Your task to perform on an android device: turn on javascript in the chrome app Image 0: 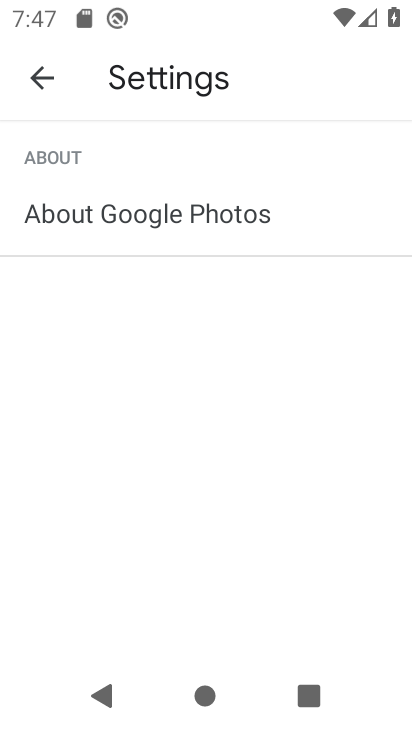
Step 0: press back button
Your task to perform on an android device: turn on javascript in the chrome app Image 1: 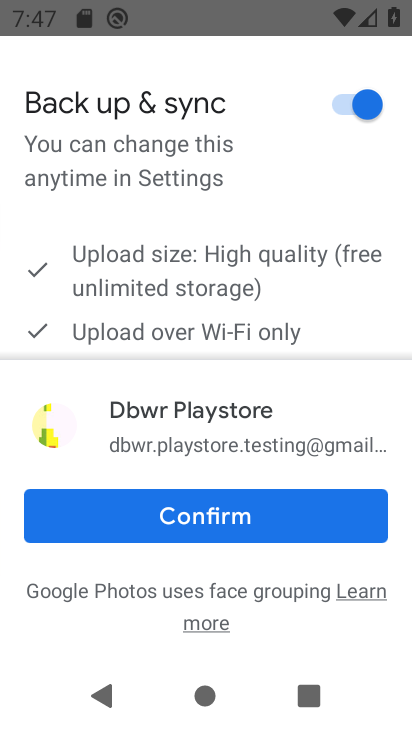
Step 1: press back button
Your task to perform on an android device: turn on javascript in the chrome app Image 2: 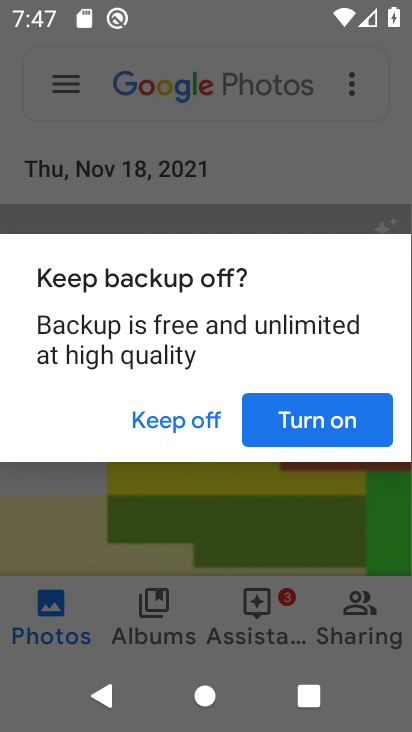
Step 2: press back button
Your task to perform on an android device: turn on javascript in the chrome app Image 3: 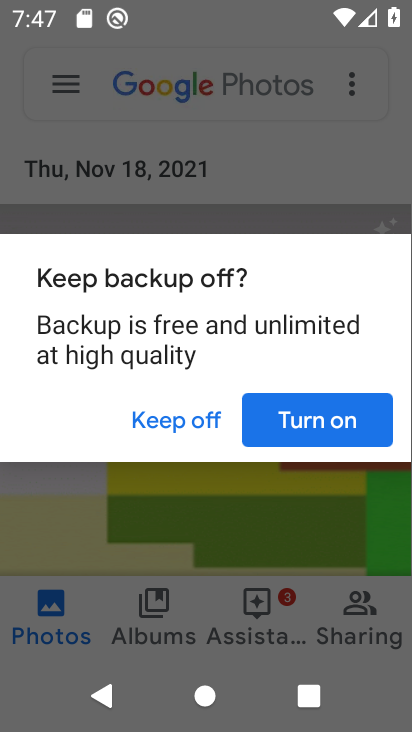
Step 3: press home button
Your task to perform on an android device: turn on javascript in the chrome app Image 4: 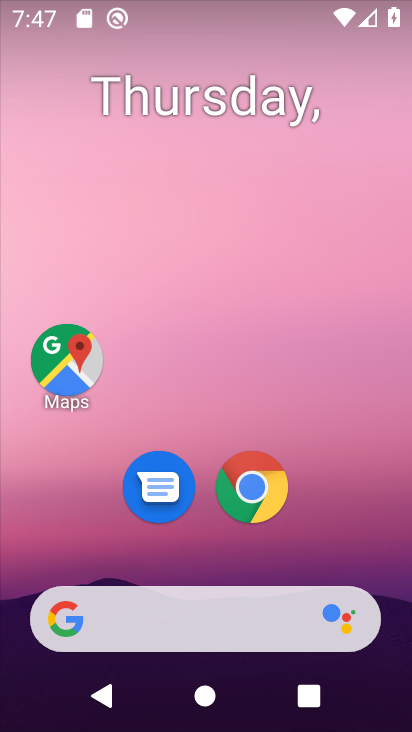
Step 4: click (270, 483)
Your task to perform on an android device: turn on javascript in the chrome app Image 5: 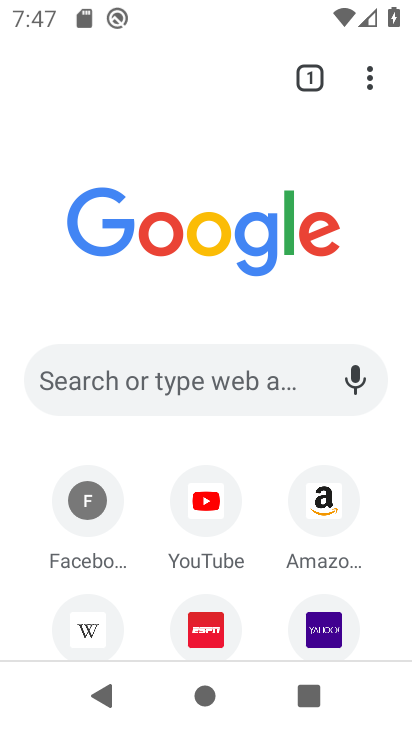
Step 5: click (372, 83)
Your task to perform on an android device: turn on javascript in the chrome app Image 6: 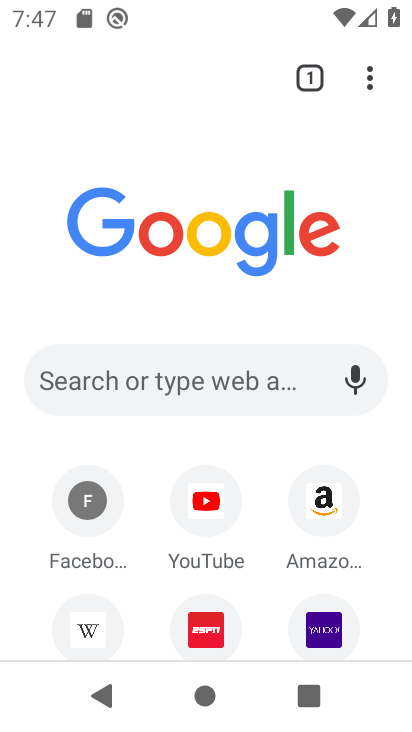
Step 6: drag from (373, 72) to (100, 555)
Your task to perform on an android device: turn on javascript in the chrome app Image 7: 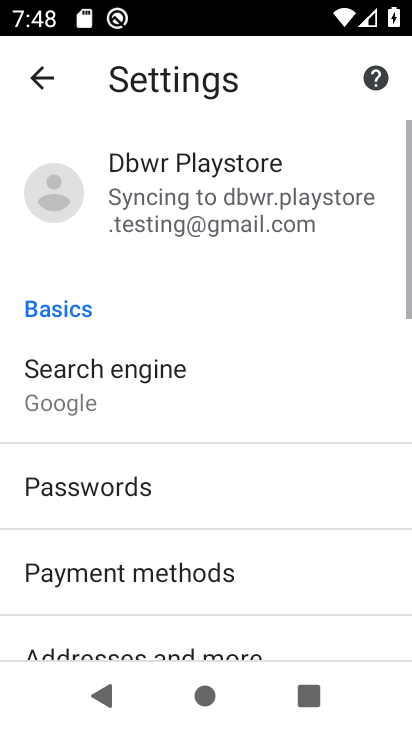
Step 7: drag from (150, 613) to (205, 125)
Your task to perform on an android device: turn on javascript in the chrome app Image 8: 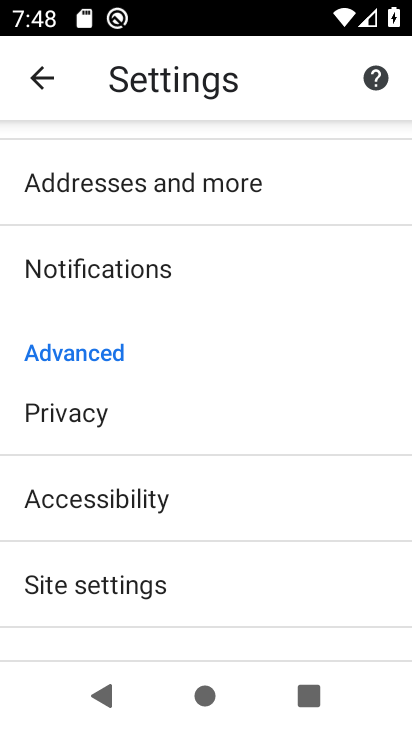
Step 8: click (183, 587)
Your task to perform on an android device: turn on javascript in the chrome app Image 9: 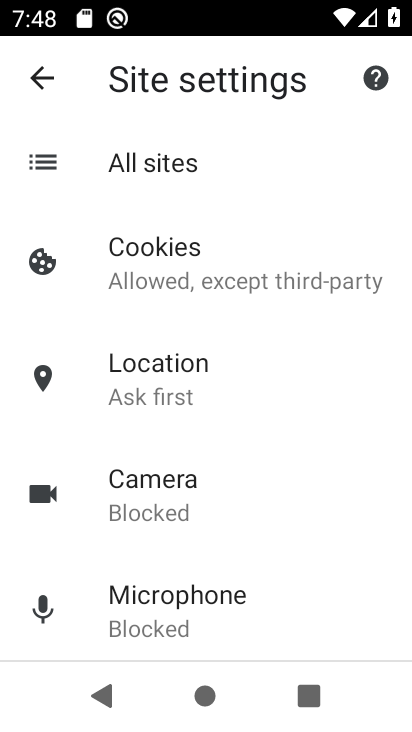
Step 9: drag from (189, 611) to (184, 224)
Your task to perform on an android device: turn on javascript in the chrome app Image 10: 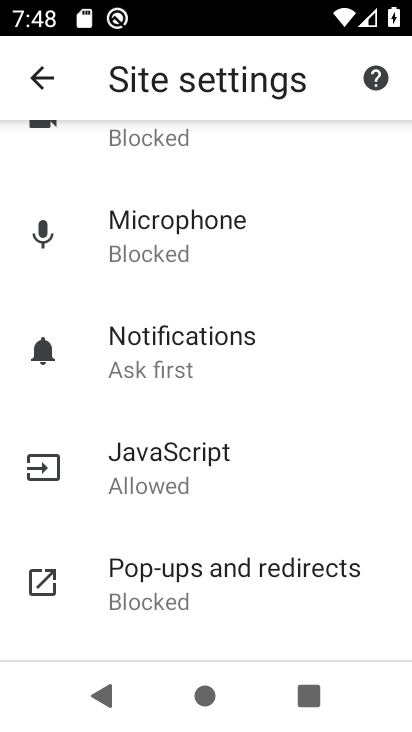
Step 10: click (195, 482)
Your task to perform on an android device: turn on javascript in the chrome app Image 11: 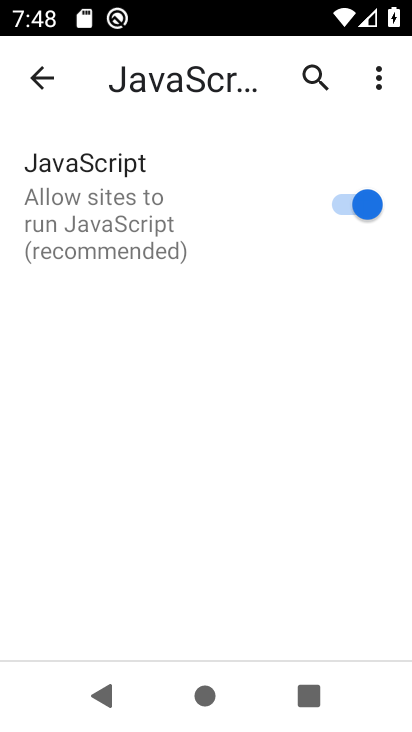
Step 11: task complete